Your task to perform on an android device: Open calendar and show me the third week of next month Image 0: 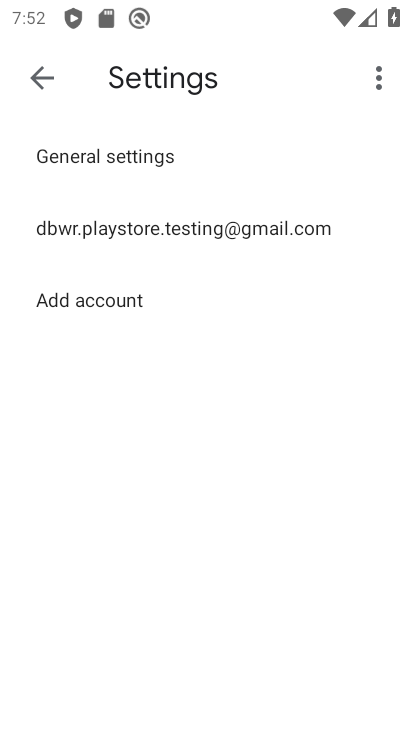
Step 0: press home button
Your task to perform on an android device: Open calendar and show me the third week of next month Image 1: 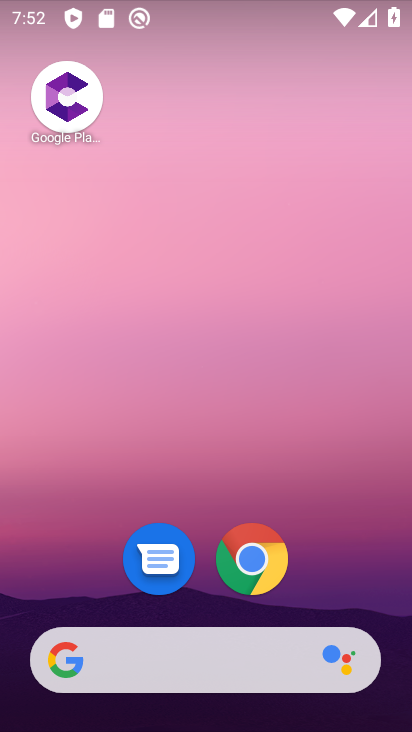
Step 1: drag from (364, 558) to (257, 35)
Your task to perform on an android device: Open calendar and show me the third week of next month Image 2: 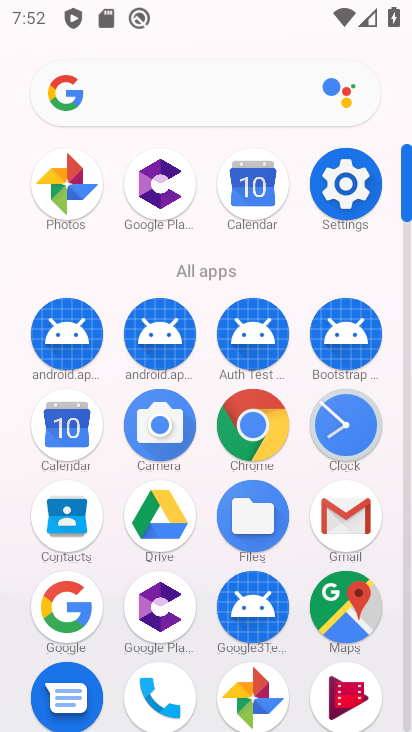
Step 2: click (243, 190)
Your task to perform on an android device: Open calendar and show me the third week of next month Image 3: 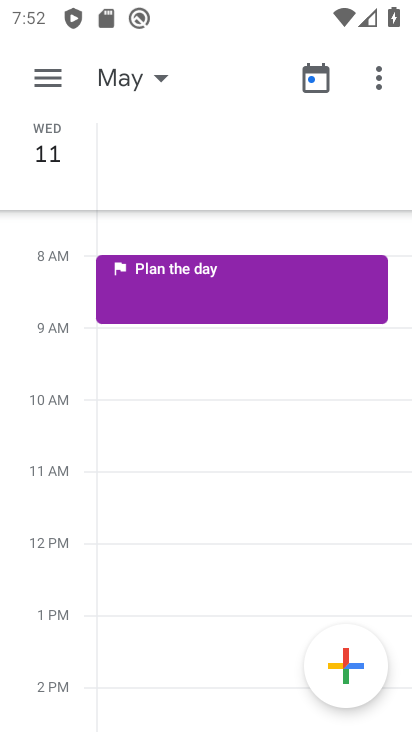
Step 3: click (129, 70)
Your task to perform on an android device: Open calendar and show me the third week of next month Image 4: 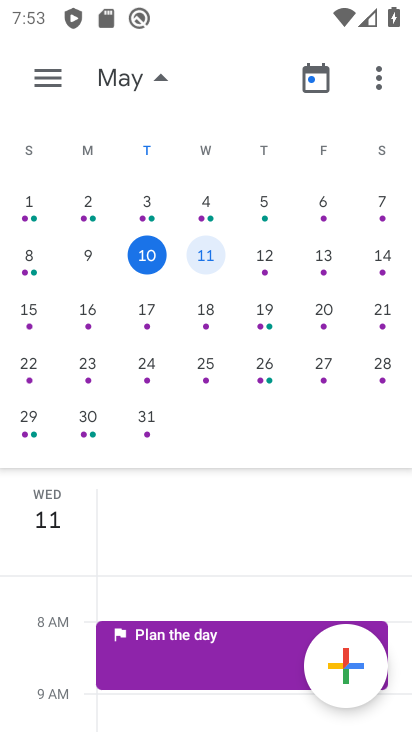
Step 4: drag from (324, 247) to (6, 206)
Your task to perform on an android device: Open calendar and show me the third week of next month Image 5: 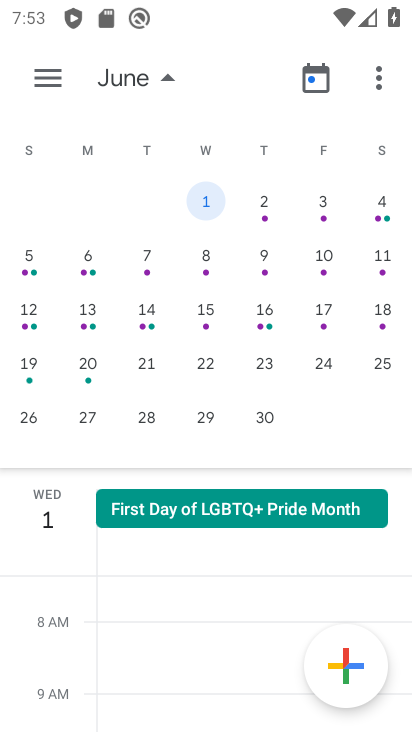
Step 5: click (23, 363)
Your task to perform on an android device: Open calendar and show me the third week of next month Image 6: 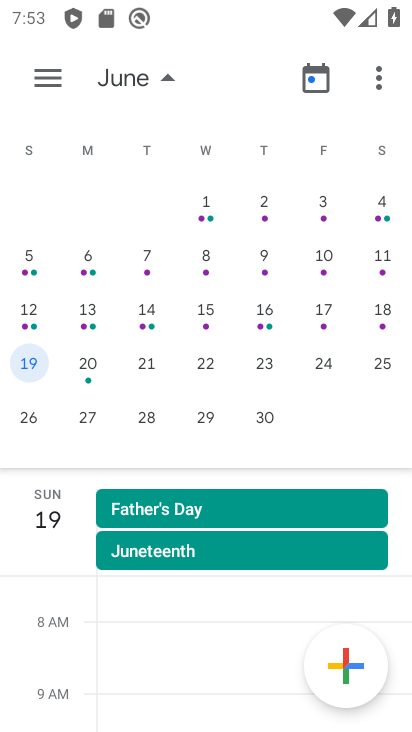
Step 6: click (50, 77)
Your task to perform on an android device: Open calendar and show me the third week of next month Image 7: 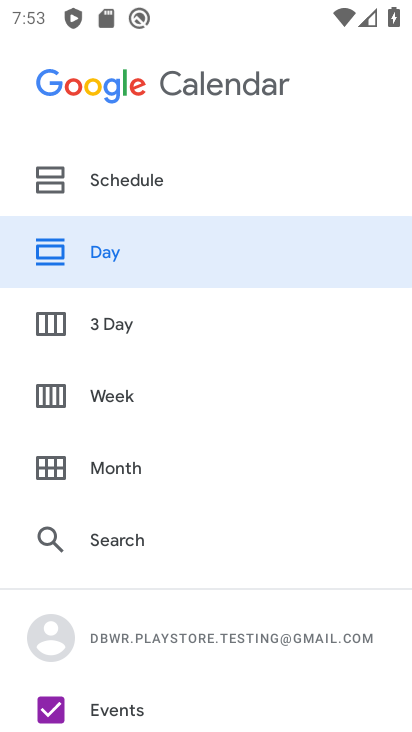
Step 7: click (177, 395)
Your task to perform on an android device: Open calendar and show me the third week of next month Image 8: 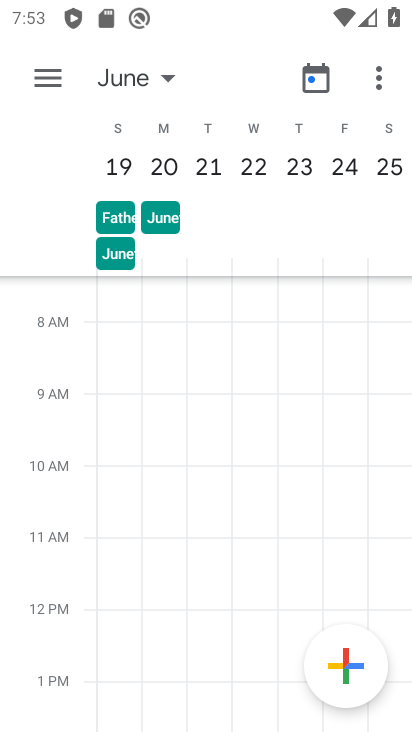
Step 8: task complete